Your task to perform on an android device: open app "Spotify: Music and Podcasts" (install if not already installed) and enter user name: "principled@inbox.com" and password: "arrests" Image 0: 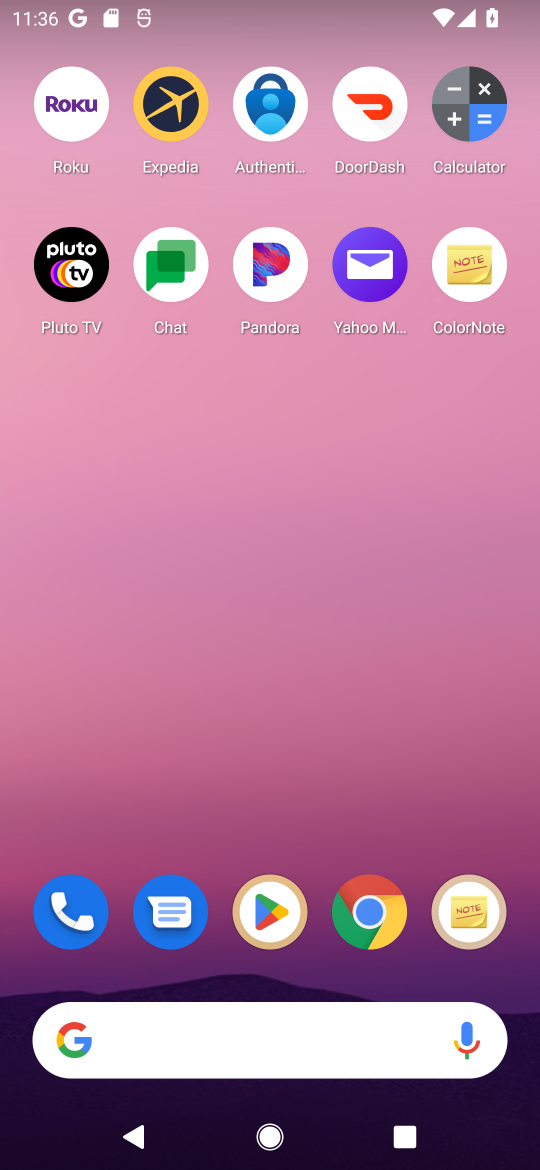
Step 0: click (273, 909)
Your task to perform on an android device: open app "Spotify: Music and Podcasts" (install if not already installed) and enter user name: "principled@inbox.com" and password: "arrests" Image 1: 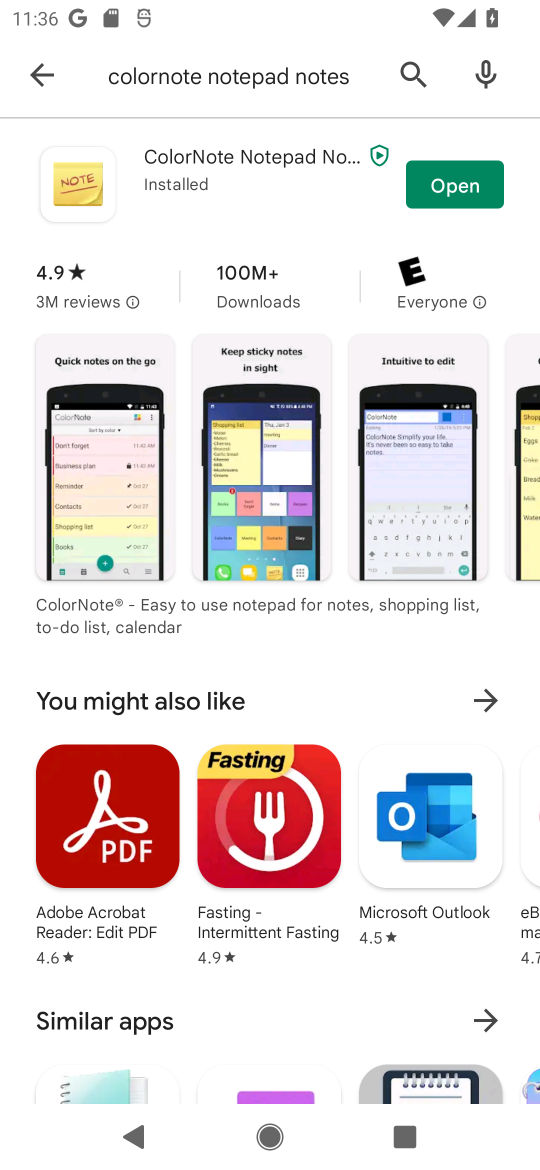
Step 1: click (419, 76)
Your task to perform on an android device: open app "Spotify: Music and Podcasts" (install if not already installed) and enter user name: "principled@inbox.com" and password: "arrests" Image 2: 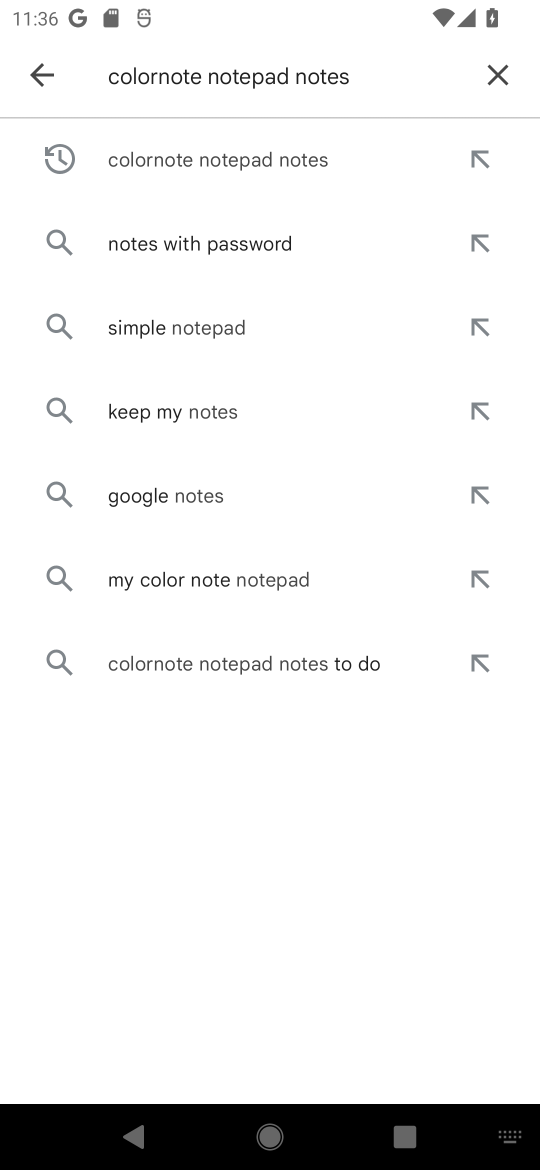
Step 2: click (510, 69)
Your task to perform on an android device: open app "Spotify: Music and Podcasts" (install if not already installed) and enter user name: "principled@inbox.com" and password: "arrests" Image 3: 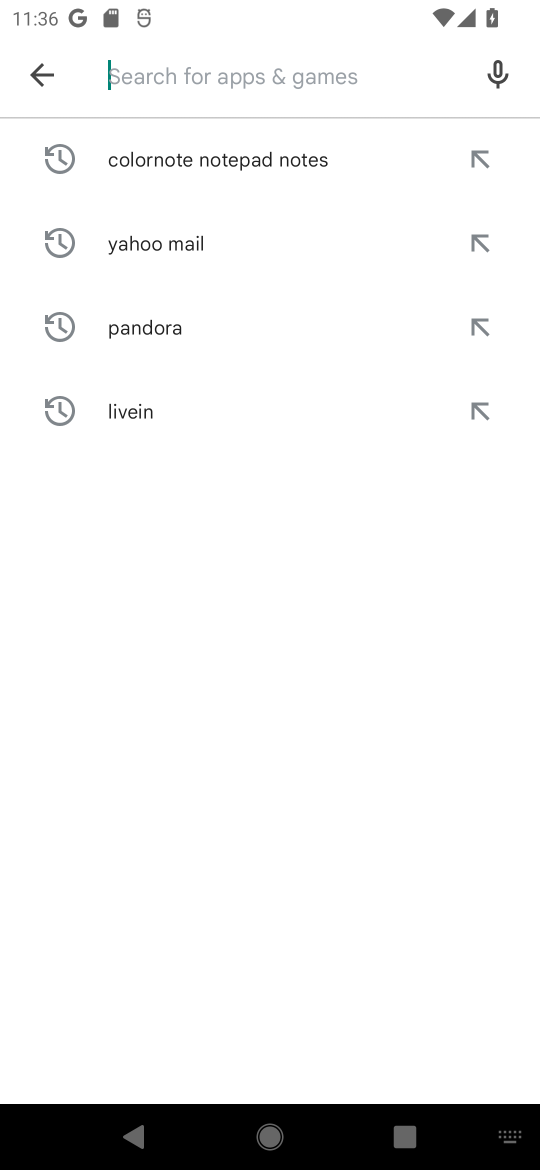
Step 3: click (170, 81)
Your task to perform on an android device: open app "Spotify: Music and Podcasts" (install if not already installed) and enter user name: "principled@inbox.com" and password: "arrests" Image 4: 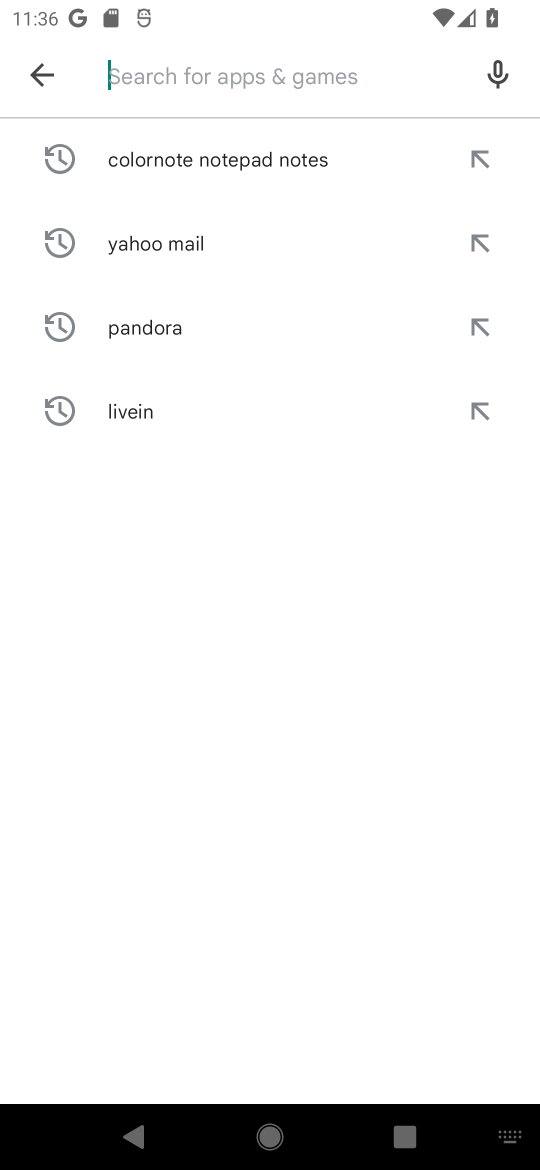
Step 4: click (202, 58)
Your task to perform on an android device: open app "Spotify: Music and Podcasts" (install if not already installed) and enter user name: "principled@inbox.com" and password: "arrests" Image 5: 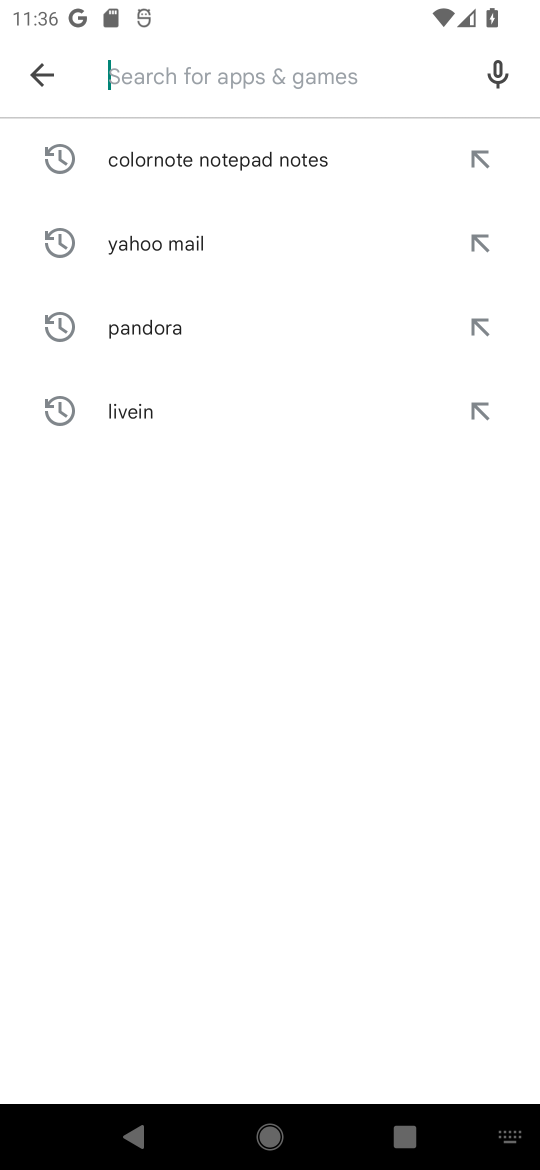
Step 5: type "spotify"
Your task to perform on an android device: open app "Spotify: Music and Podcasts" (install if not already installed) and enter user name: "principled@inbox.com" and password: "arrests" Image 6: 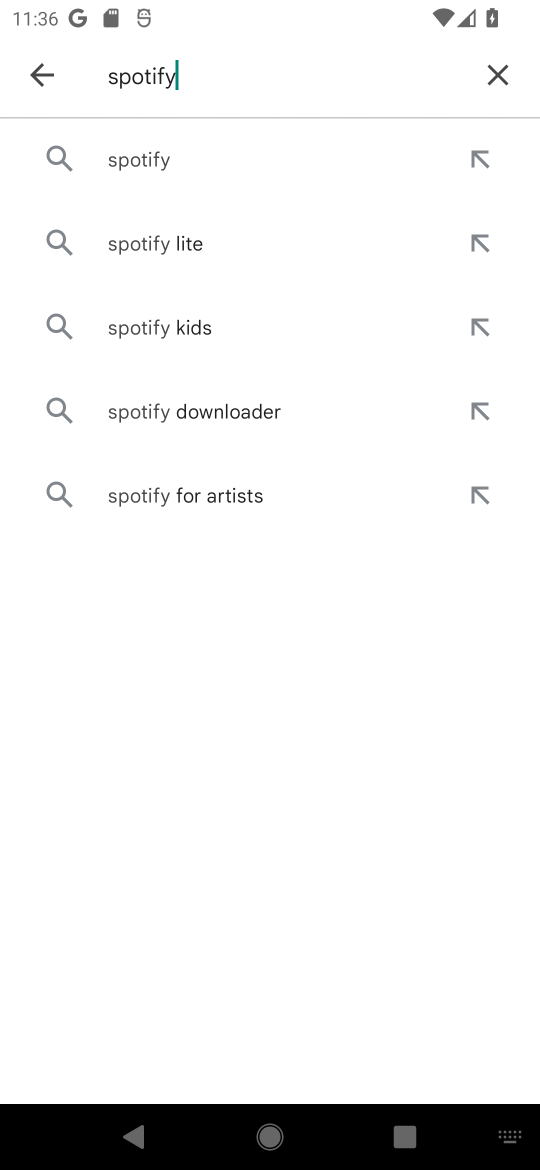
Step 6: click (213, 147)
Your task to perform on an android device: open app "Spotify: Music and Podcasts" (install if not already installed) and enter user name: "principled@inbox.com" and password: "arrests" Image 7: 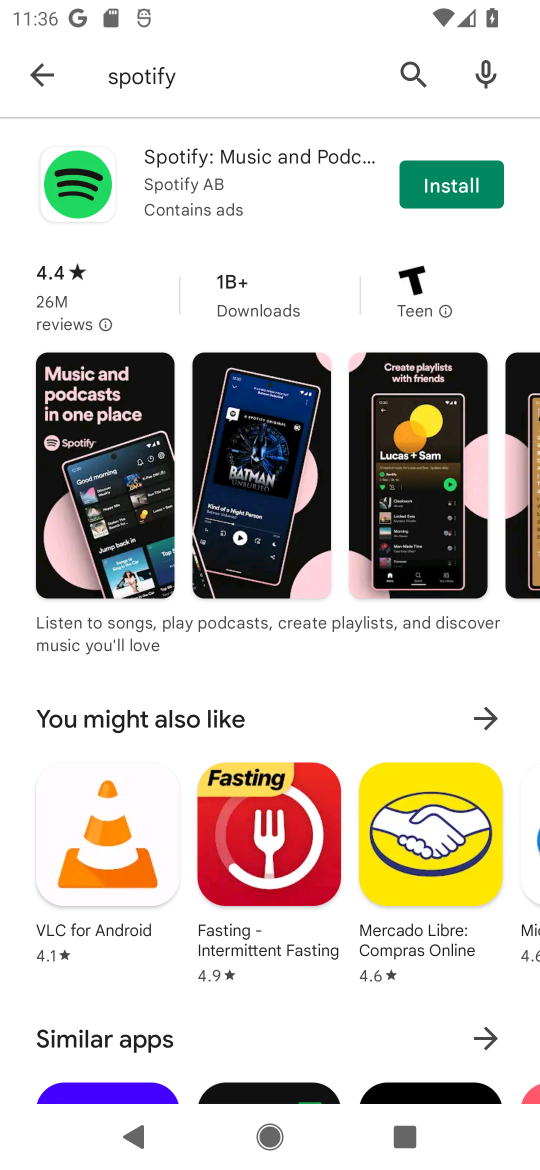
Step 7: click (437, 178)
Your task to perform on an android device: open app "Spotify: Music and Podcasts" (install if not already installed) and enter user name: "principled@inbox.com" and password: "arrests" Image 8: 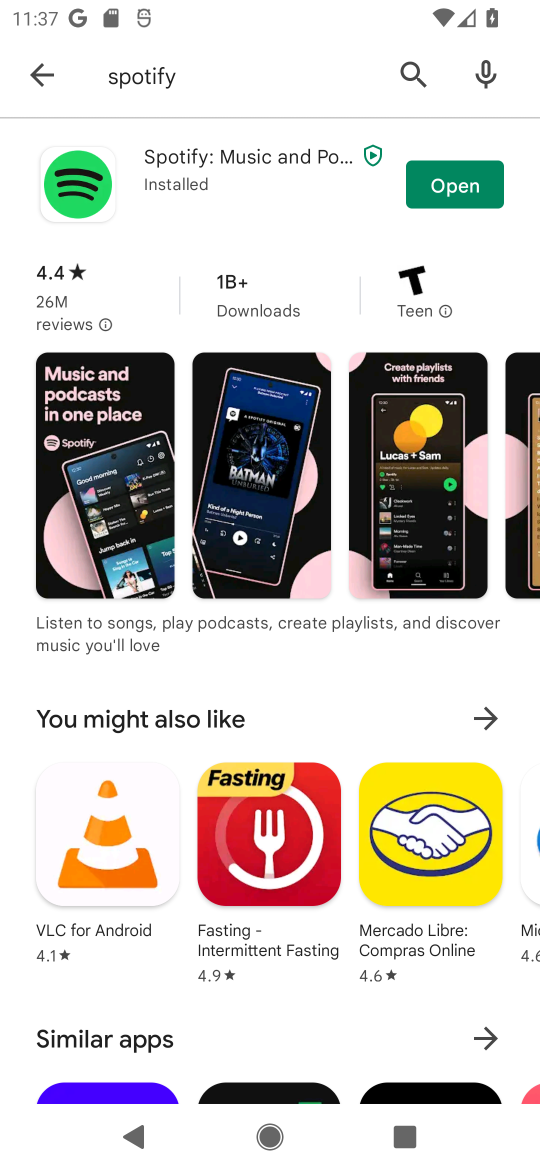
Step 8: click (437, 178)
Your task to perform on an android device: open app "Spotify: Music and Podcasts" (install if not already installed) and enter user name: "principled@inbox.com" and password: "arrests" Image 9: 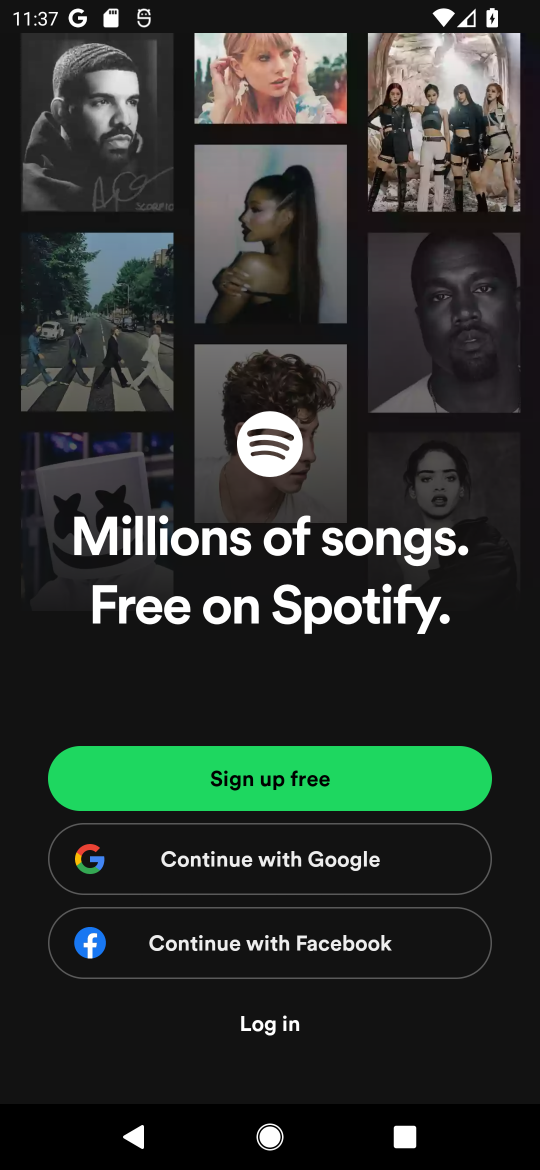
Step 9: click (270, 1025)
Your task to perform on an android device: open app "Spotify: Music and Podcasts" (install if not already installed) and enter user name: "principled@inbox.com" and password: "arrests" Image 10: 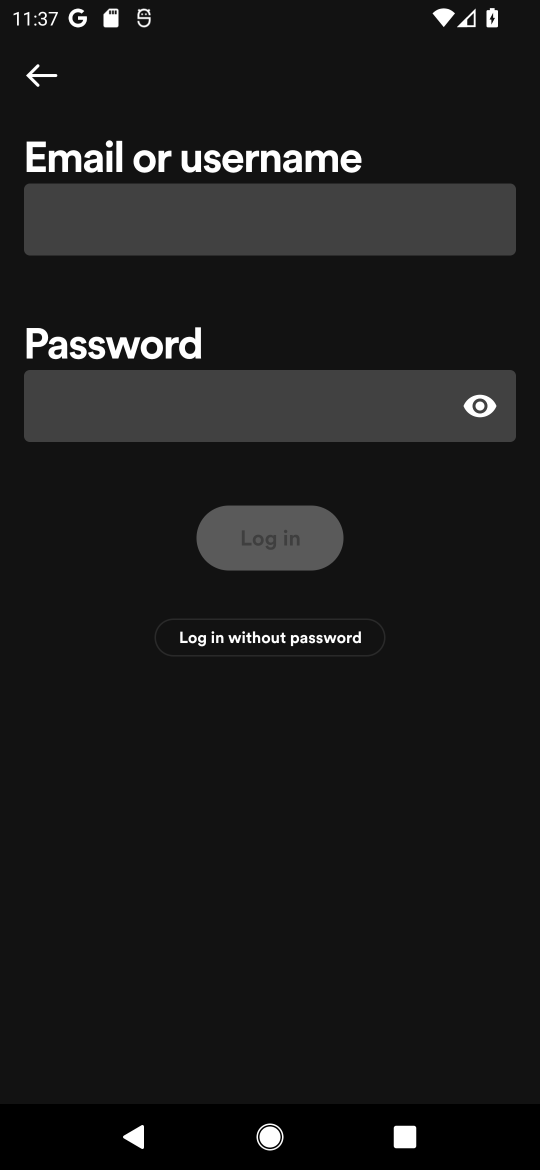
Step 10: click (58, 213)
Your task to perform on an android device: open app "Spotify: Music and Podcasts" (install if not already installed) and enter user name: "principled@inbox.com" and password: "arrests" Image 11: 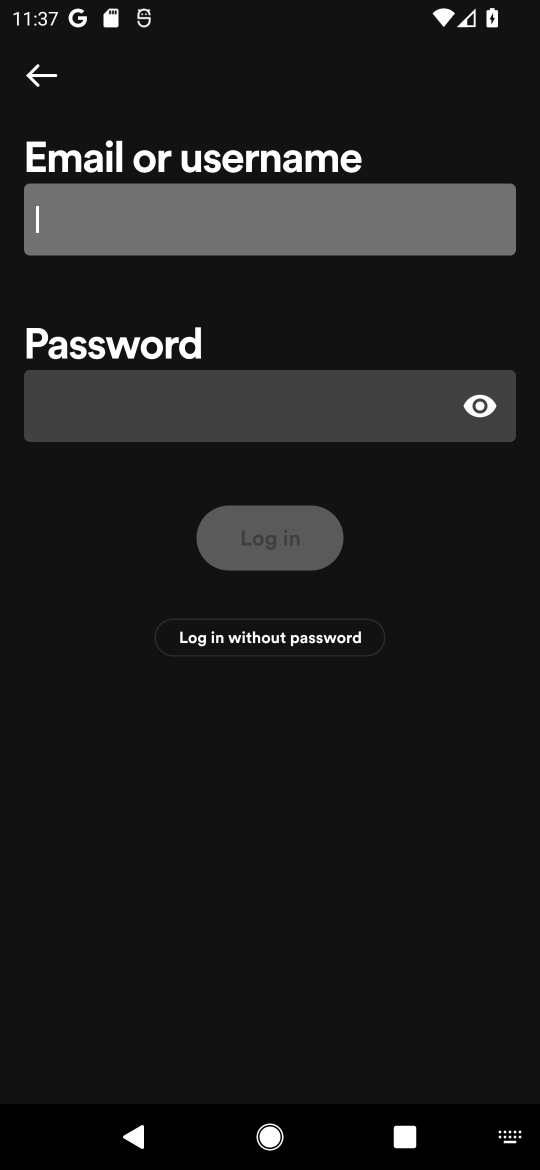
Step 11: click (85, 217)
Your task to perform on an android device: open app "Spotify: Music and Podcasts" (install if not already installed) and enter user name: "principled@inbox.com" and password: "arrests" Image 12: 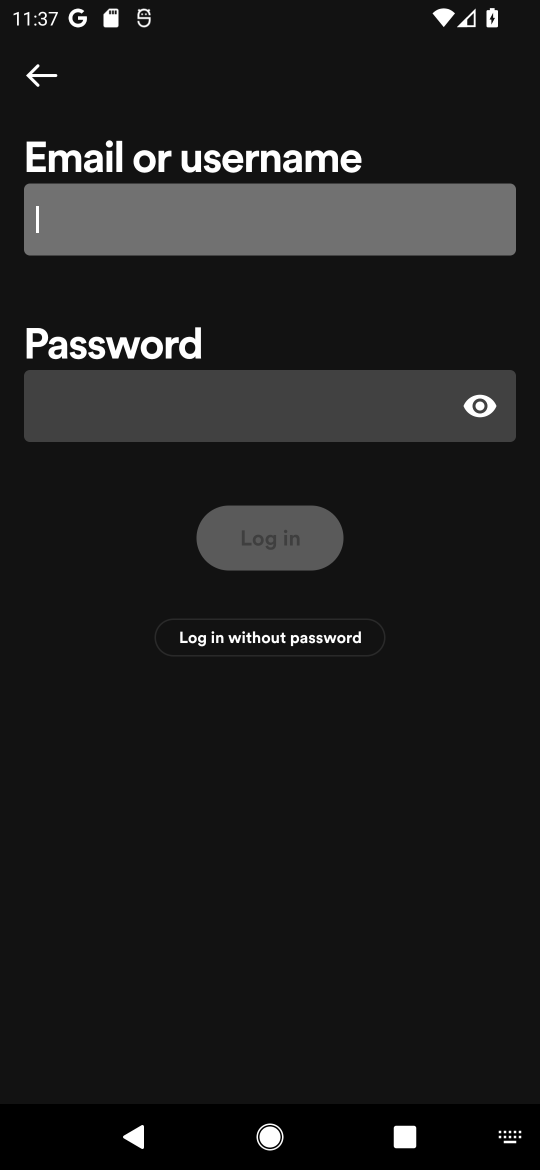
Step 12: type "principled@inbox.com"
Your task to perform on an android device: open app "Spotify: Music and Podcasts" (install if not already installed) and enter user name: "principled@inbox.com" and password: "arrests" Image 13: 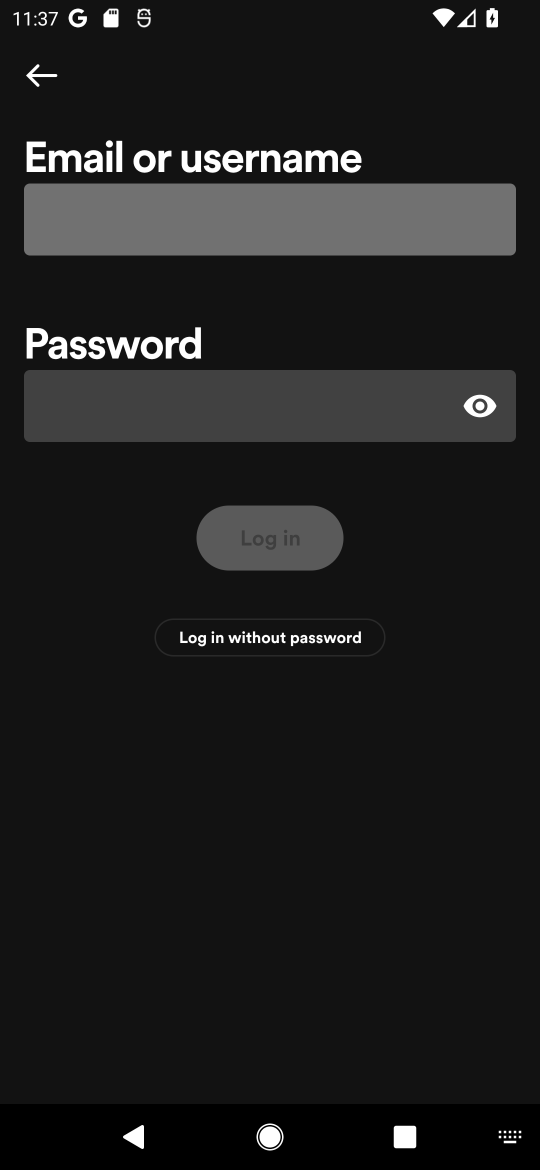
Step 13: click (289, 400)
Your task to perform on an android device: open app "Spotify: Music and Podcasts" (install if not already installed) and enter user name: "principled@inbox.com" and password: "arrests" Image 14: 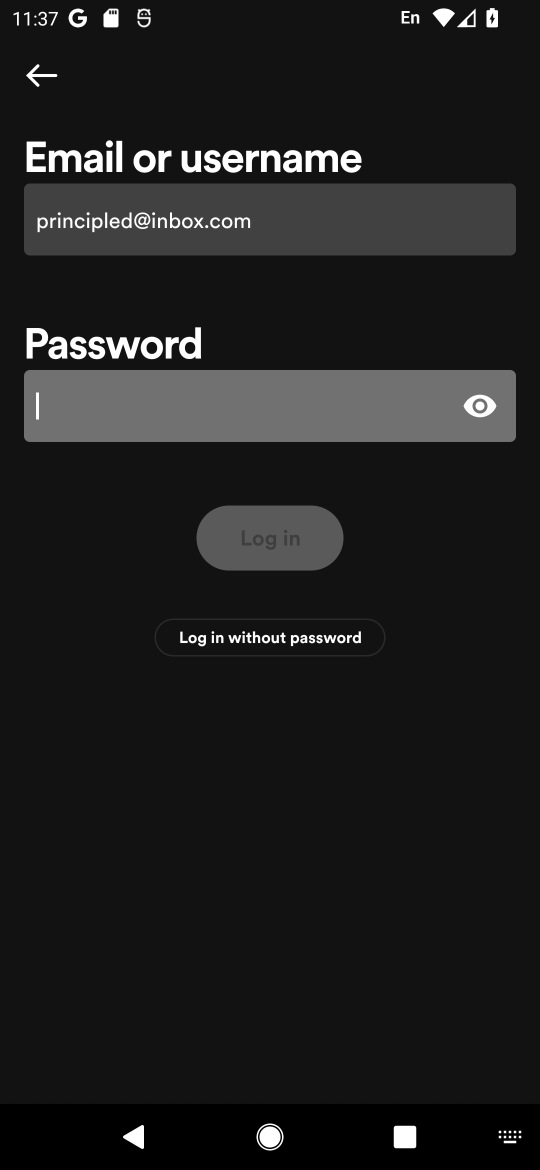
Step 14: click (128, 382)
Your task to perform on an android device: open app "Spotify: Music and Podcasts" (install if not already installed) and enter user name: "principled@inbox.com" and password: "arrests" Image 15: 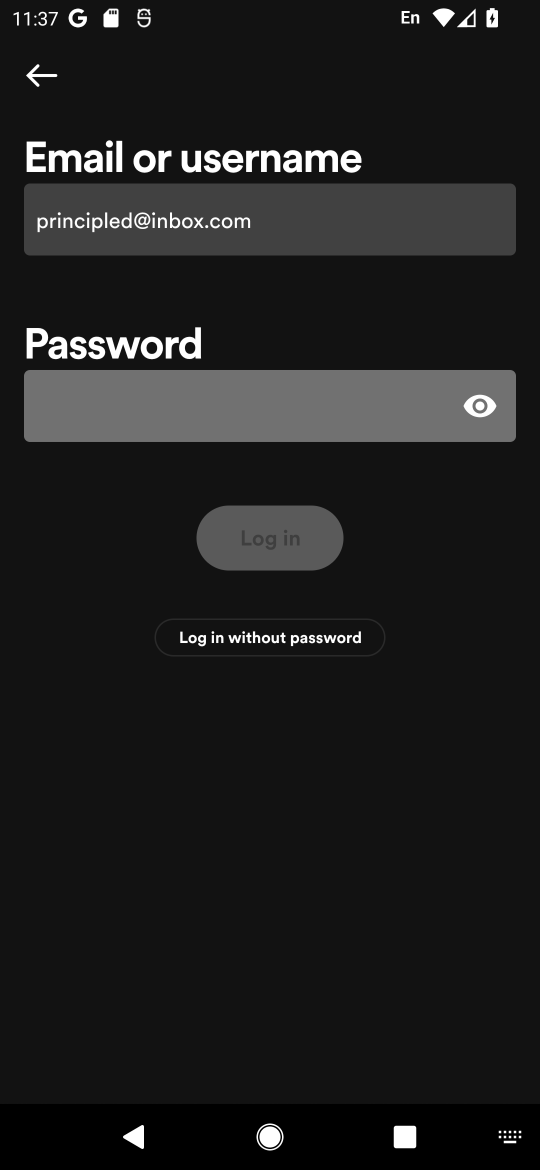
Step 15: type "arrests"
Your task to perform on an android device: open app "Spotify: Music and Podcasts" (install if not already installed) and enter user name: "principled@inbox.com" and password: "arrests" Image 16: 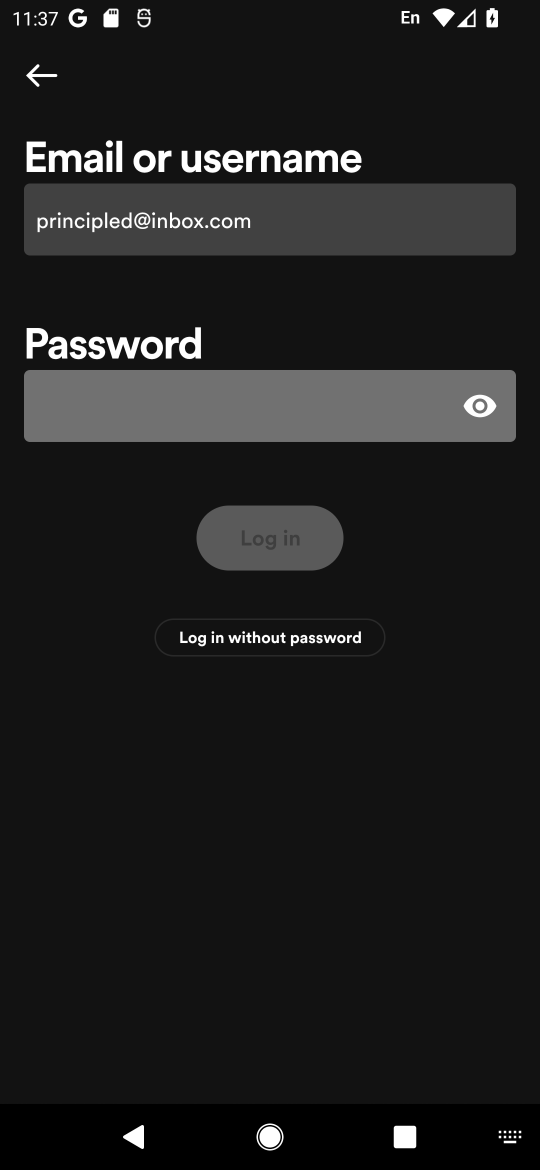
Step 16: click (260, 835)
Your task to perform on an android device: open app "Spotify: Music and Podcasts" (install if not already installed) and enter user name: "principled@inbox.com" and password: "arrests" Image 17: 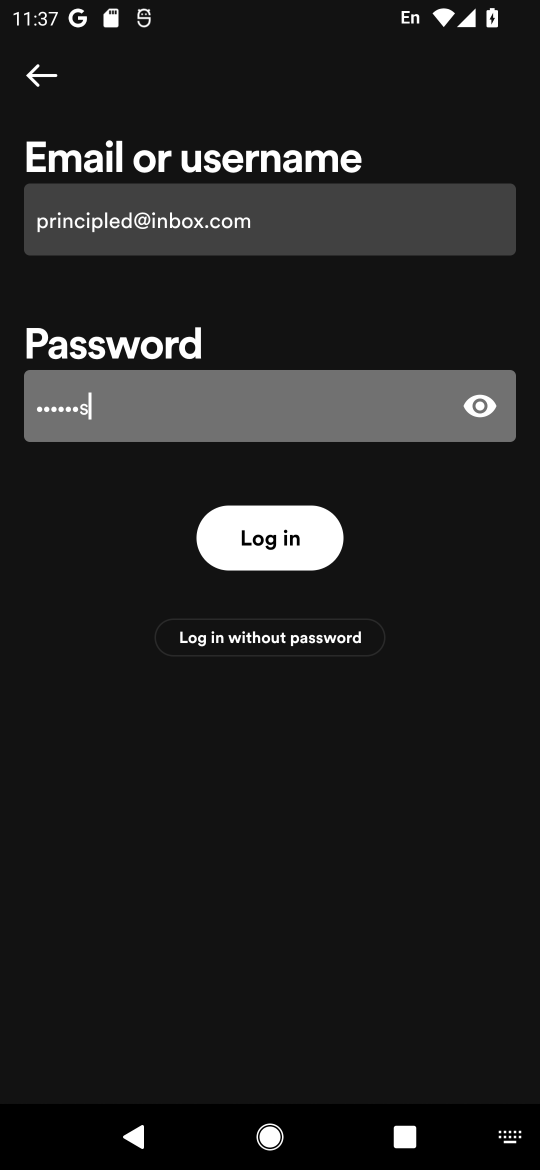
Step 17: task complete